Your task to perform on an android device: Go to sound settings Image 0: 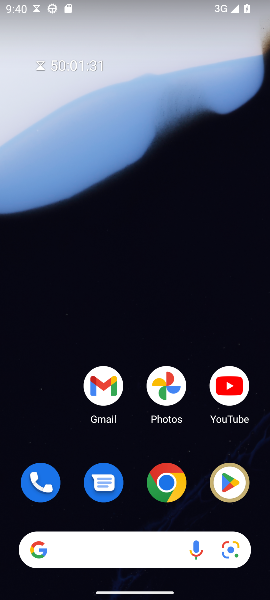
Step 0: drag from (123, 547) to (216, 128)
Your task to perform on an android device: Go to sound settings Image 1: 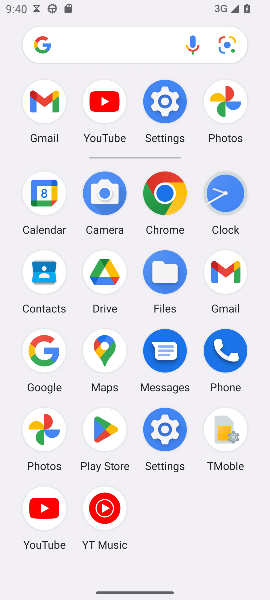
Step 1: click (173, 105)
Your task to perform on an android device: Go to sound settings Image 2: 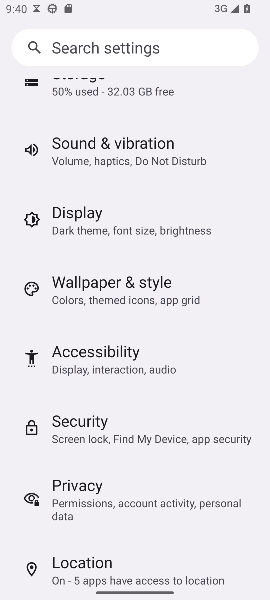
Step 2: click (114, 160)
Your task to perform on an android device: Go to sound settings Image 3: 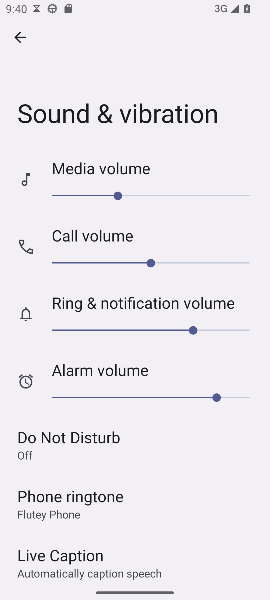
Step 3: task complete